Your task to perform on an android device: Open Youtube and go to the subscriptions tab Image 0: 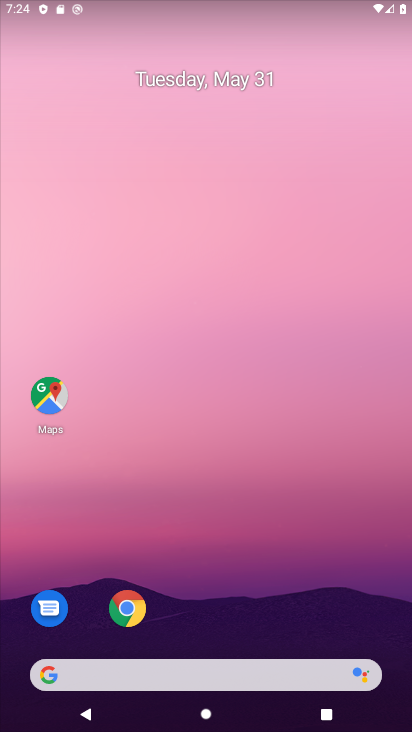
Step 0: drag from (273, 585) to (397, 114)
Your task to perform on an android device: Open Youtube and go to the subscriptions tab Image 1: 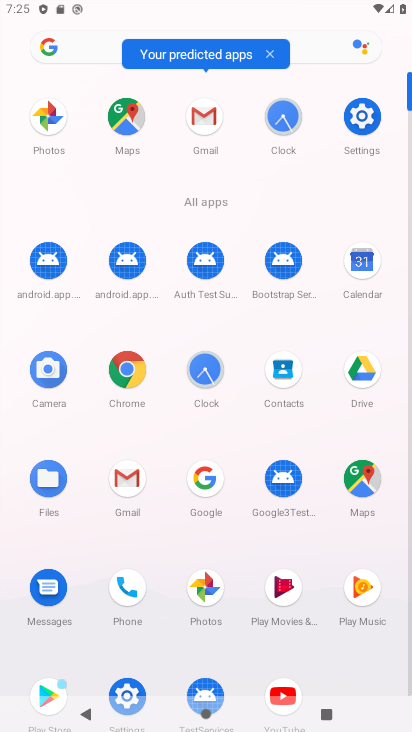
Step 1: click (280, 694)
Your task to perform on an android device: Open Youtube and go to the subscriptions tab Image 2: 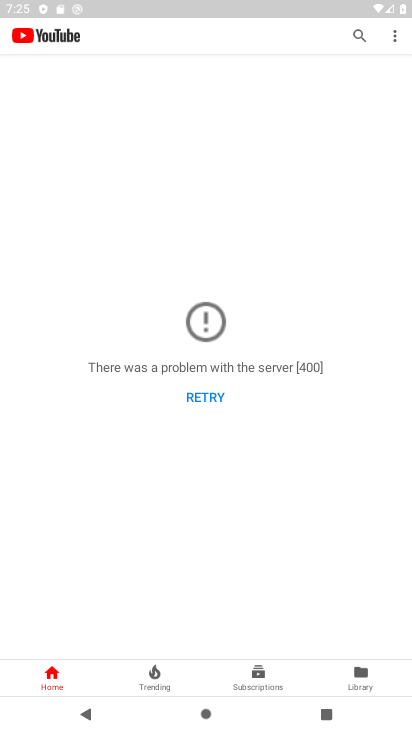
Step 2: click (256, 676)
Your task to perform on an android device: Open Youtube and go to the subscriptions tab Image 3: 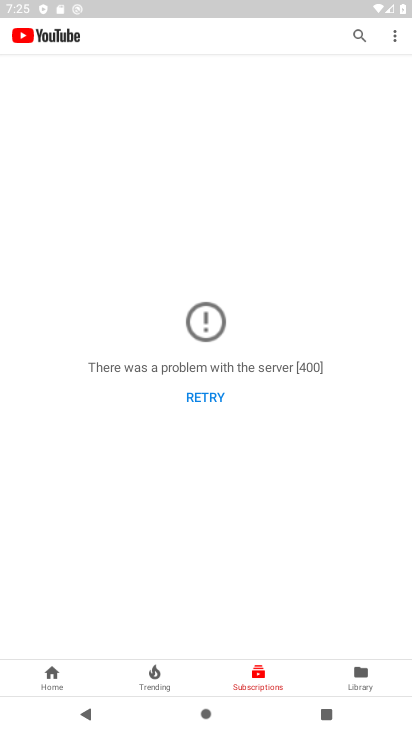
Step 3: task complete